Your task to perform on an android device: Open the stopwatch Image 0: 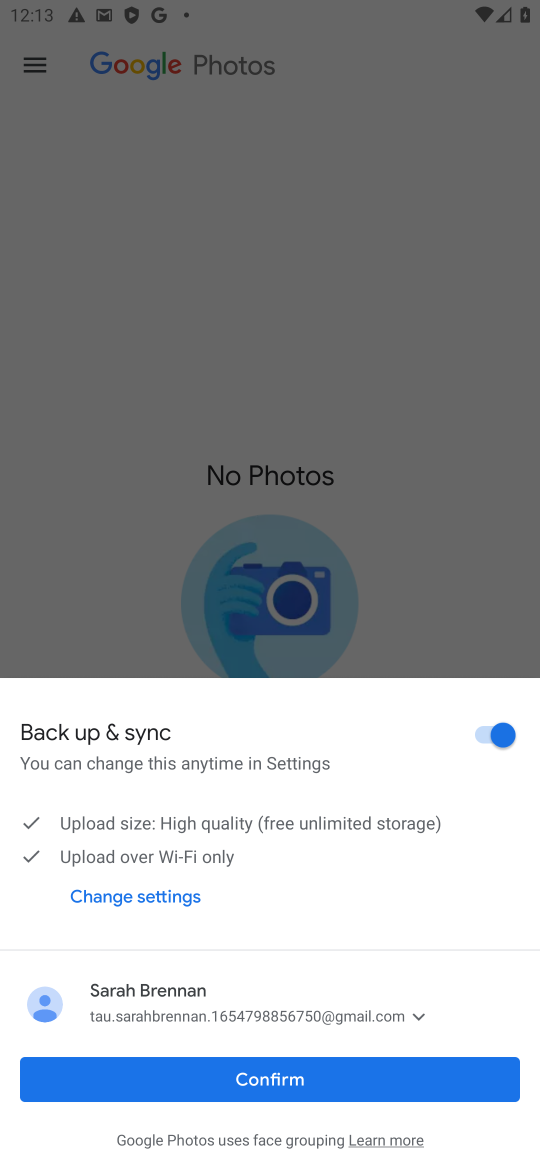
Step 0: press home button
Your task to perform on an android device: Open the stopwatch Image 1: 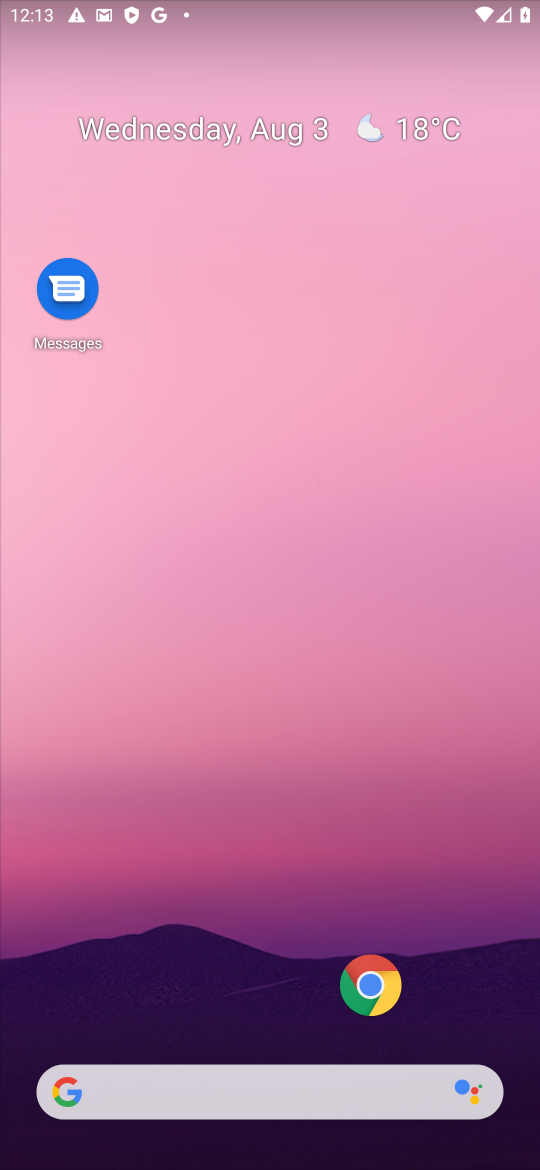
Step 1: drag from (223, 1055) to (111, 83)
Your task to perform on an android device: Open the stopwatch Image 2: 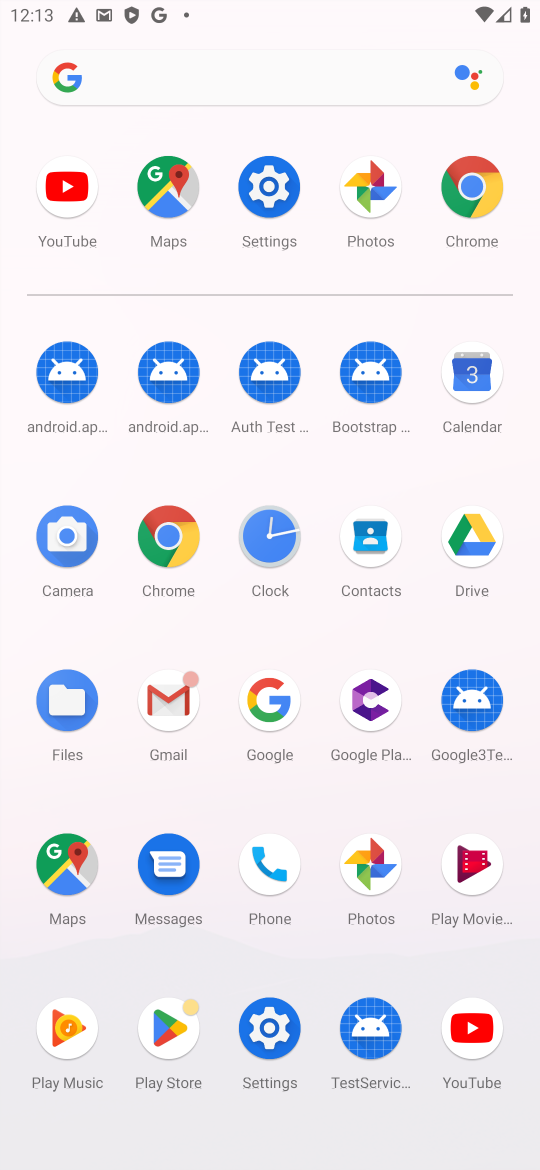
Step 2: click (308, 201)
Your task to perform on an android device: Open the stopwatch Image 3: 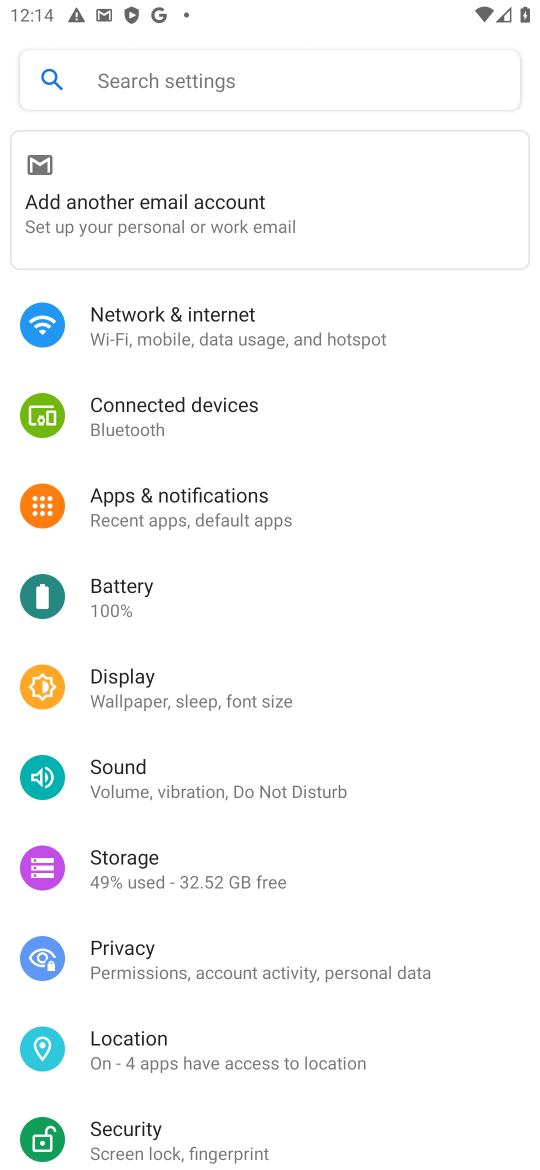
Step 3: press home button
Your task to perform on an android device: Open the stopwatch Image 4: 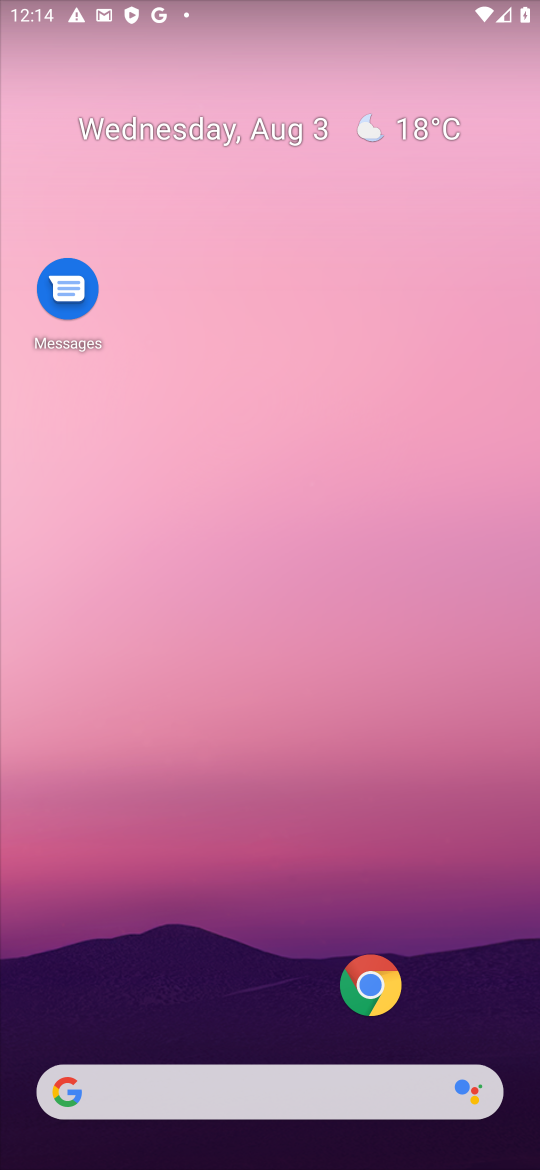
Step 4: drag from (177, 983) to (176, 139)
Your task to perform on an android device: Open the stopwatch Image 5: 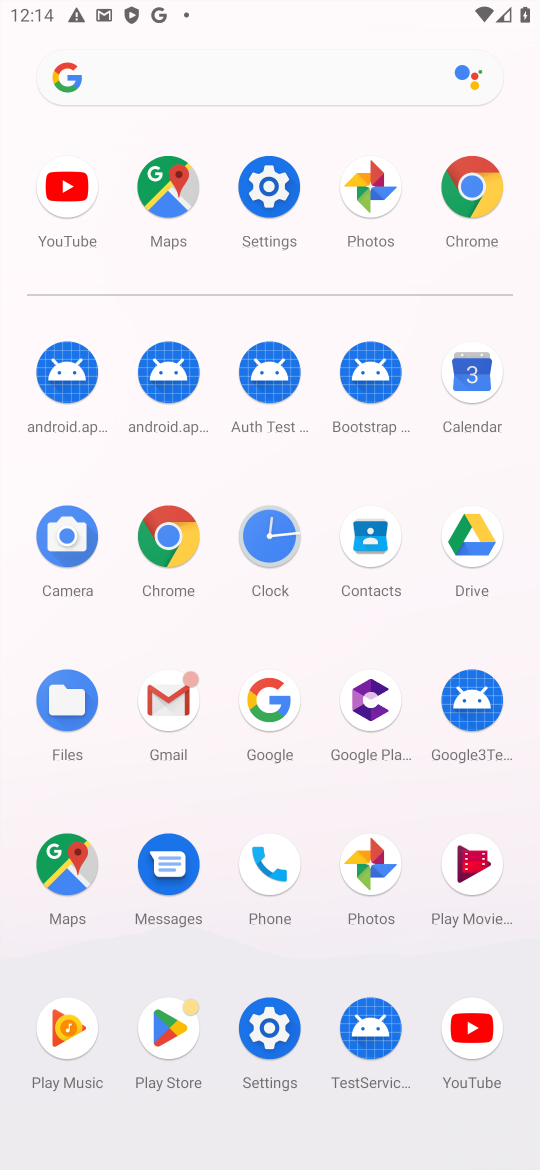
Step 5: click (260, 562)
Your task to perform on an android device: Open the stopwatch Image 6: 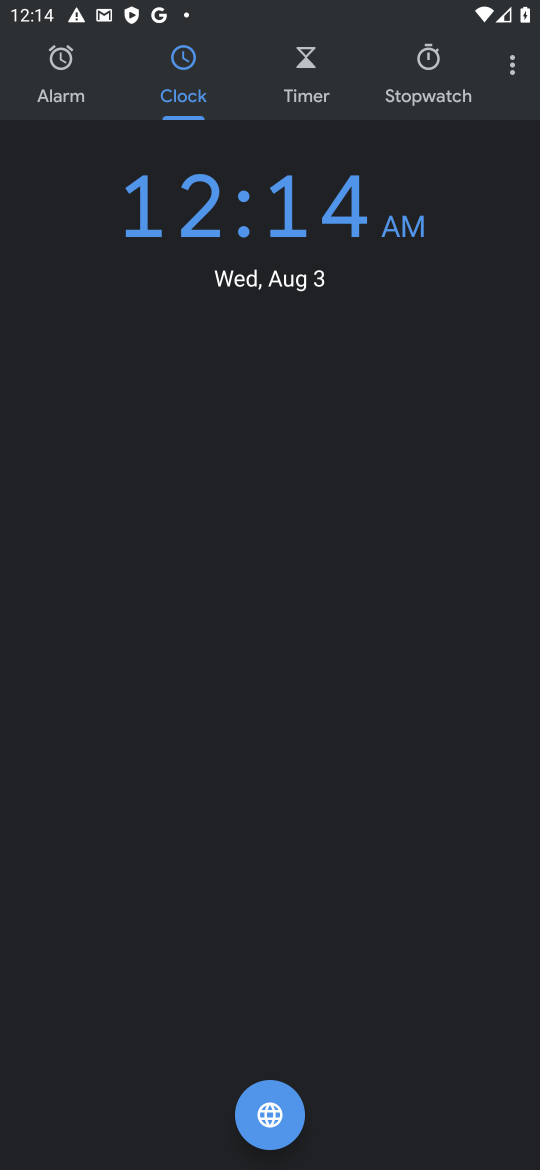
Step 6: task complete